Your task to perform on an android device: Open settings Image 0: 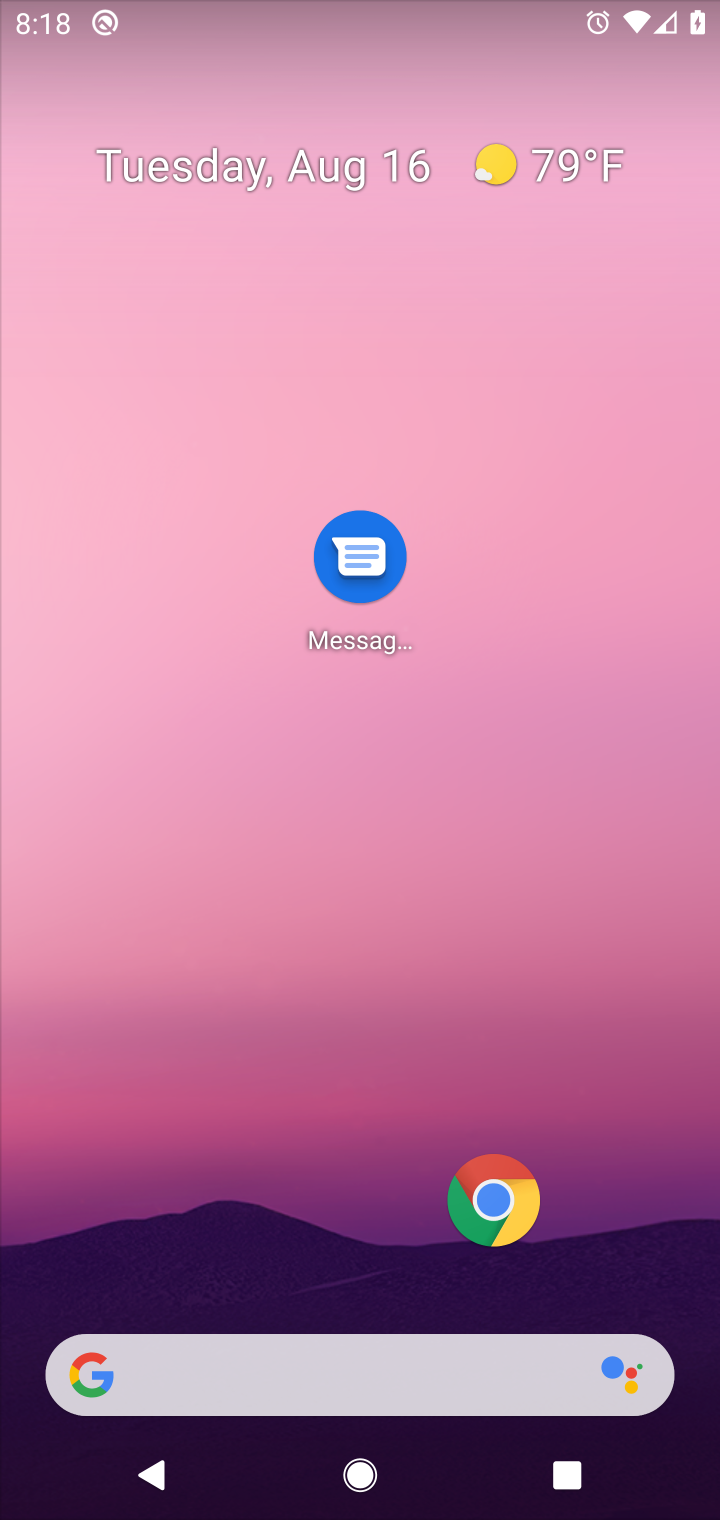
Step 0: drag from (178, 1205) to (254, 74)
Your task to perform on an android device: Open settings Image 1: 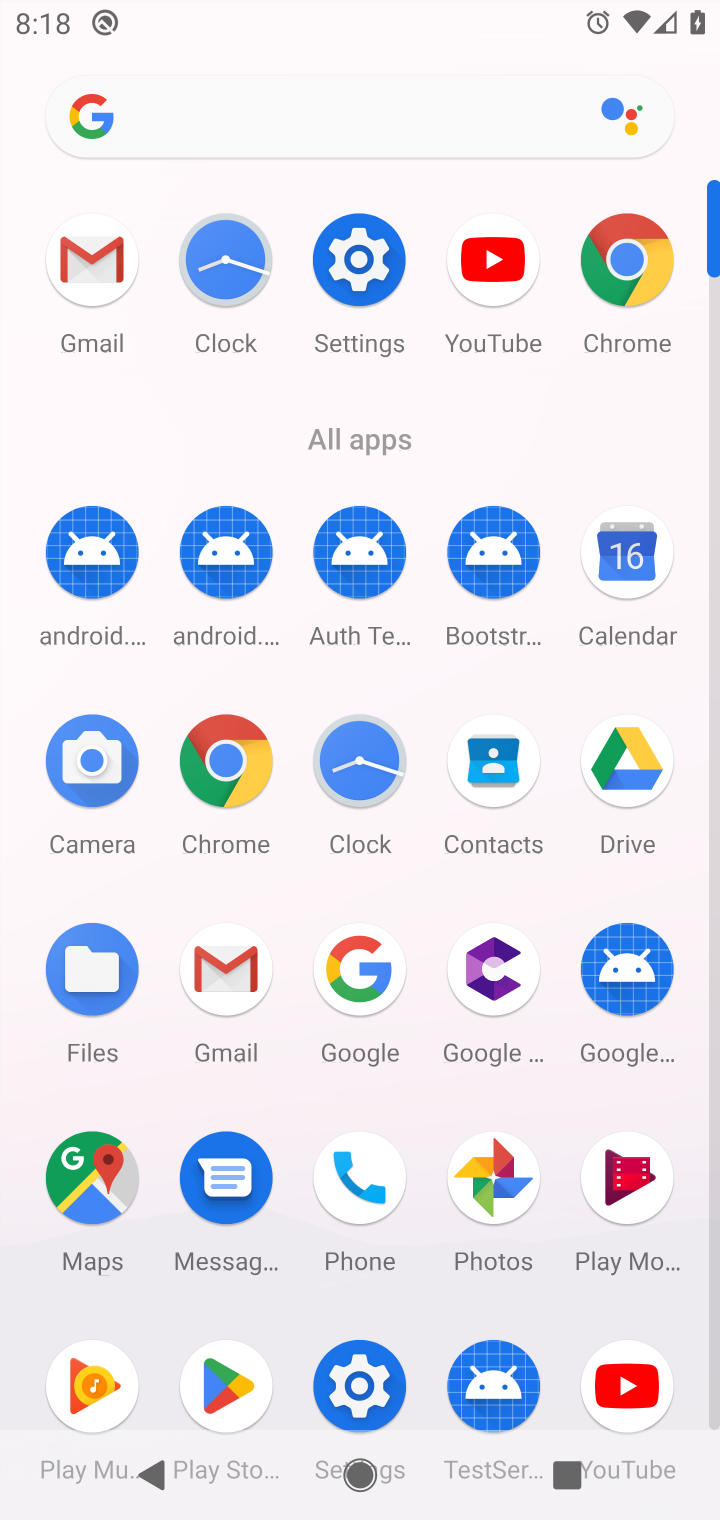
Step 1: click (362, 1383)
Your task to perform on an android device: Open settings Image 2: 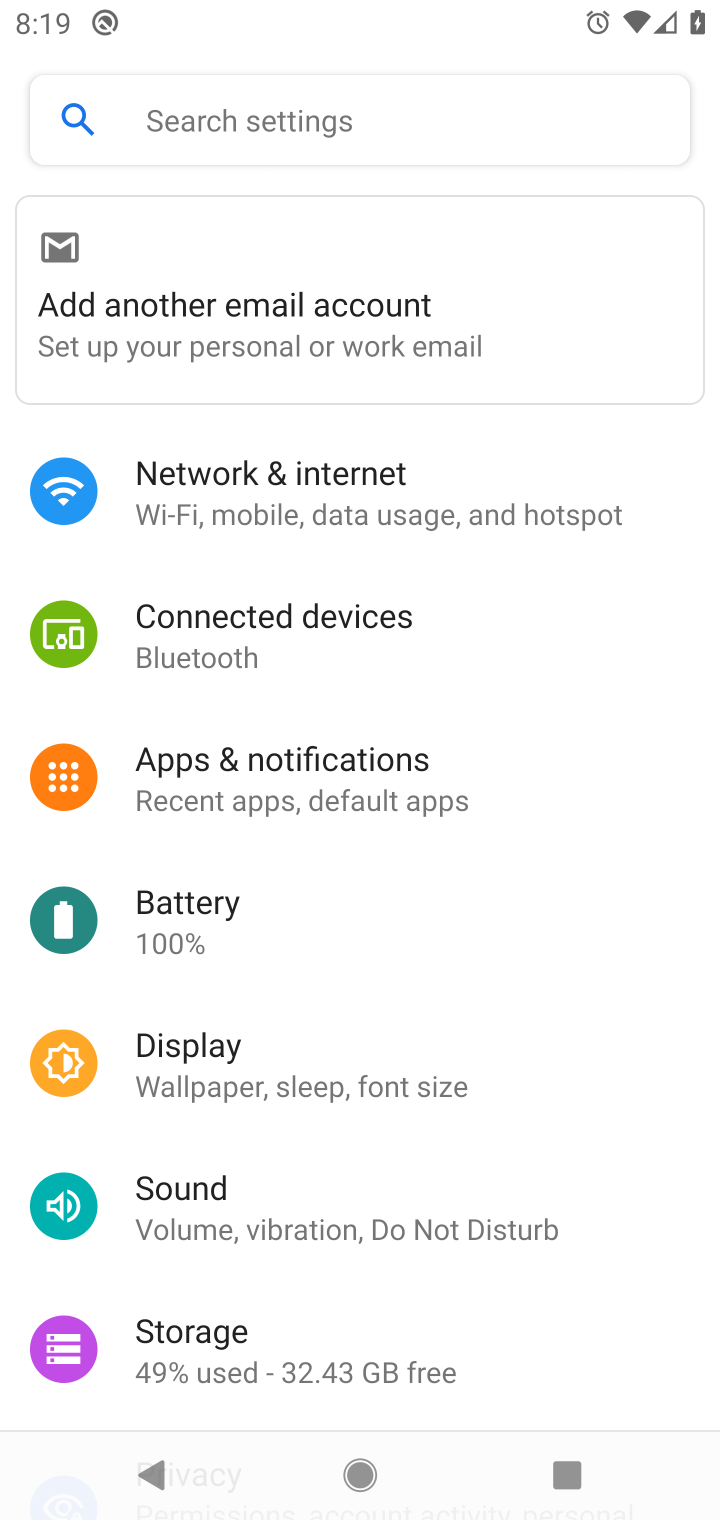
Step 2: task complete